Your task to perform on an android device: add a contact Image 0: 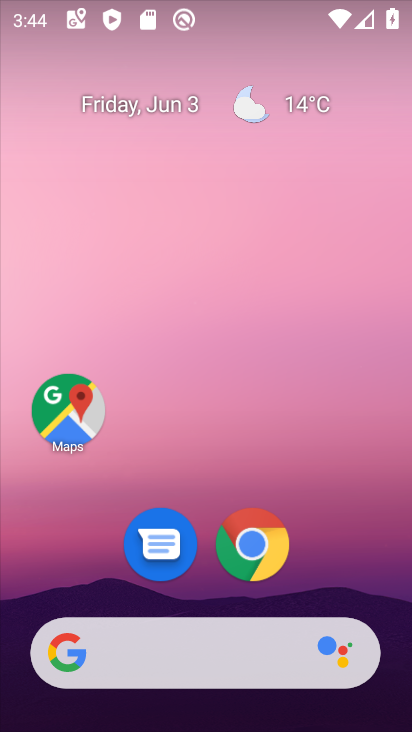
Step 0: drag from (398, 605) to (308, 117)
Your task to perform on an android device: add a contact Image 1: 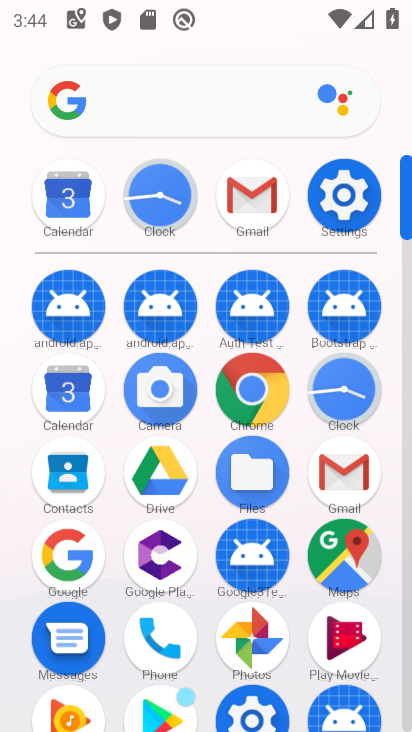
Step 1: click (408, 685)
Your task to perform on an android device: add a contact Image 2: 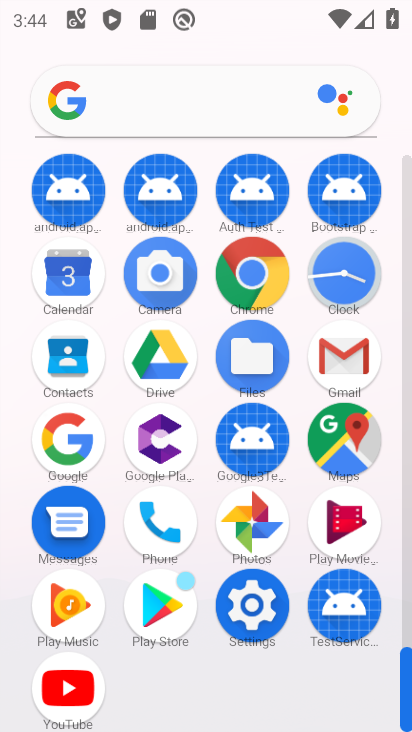
Step 2: click (64, 365)
Your task to perform on an android device: add a contact Image 3: 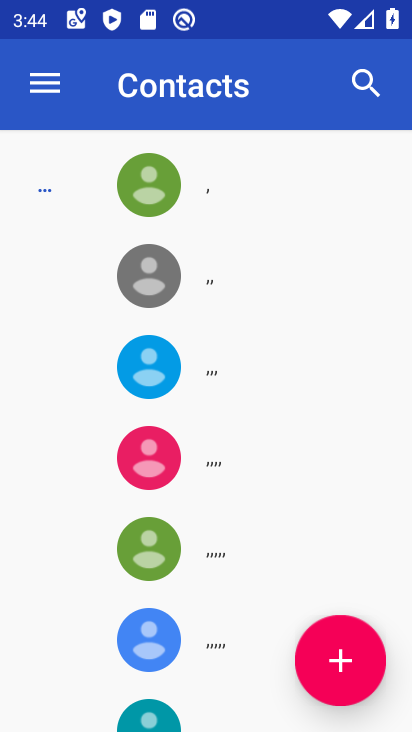
Step 3: click (346, 662)
Your task to perform on an android device: add a contact Image 4: 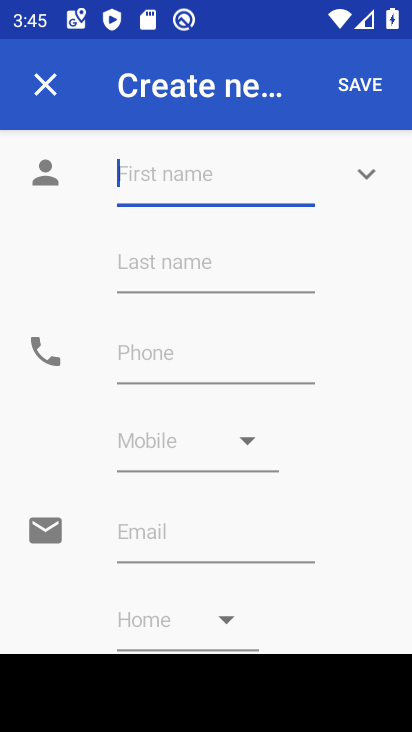
Step 4: type "oiuytghbbbbbn"
Your task to perform on an android device: add a contact Image 5: 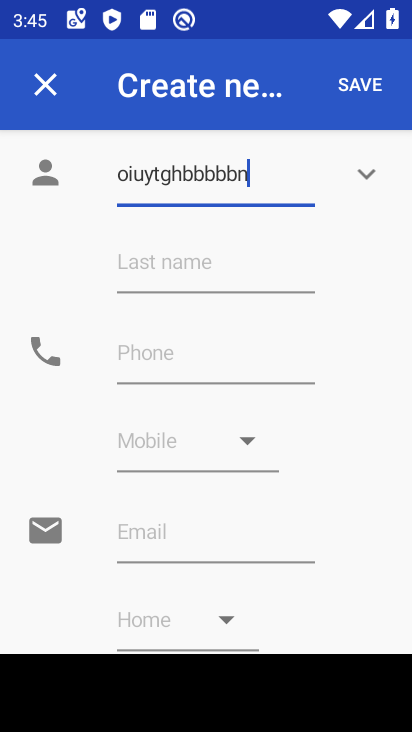
Step 5: click (174, 375)
Your task to perform on an android device: add a contact Image 6: 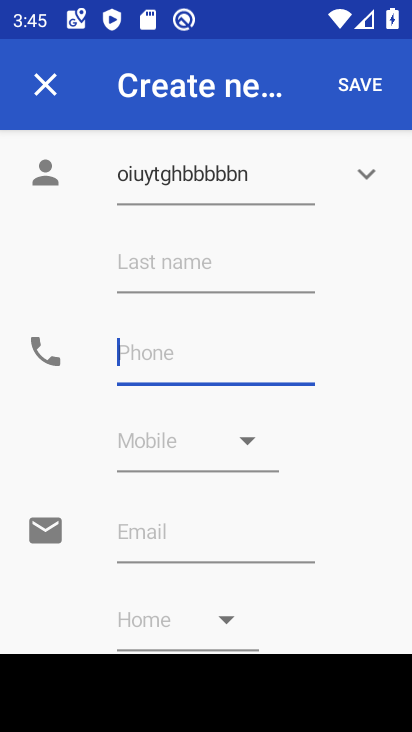
Step 6: type "0987654"
Your task to perform on an android device: add a contact Image 7: 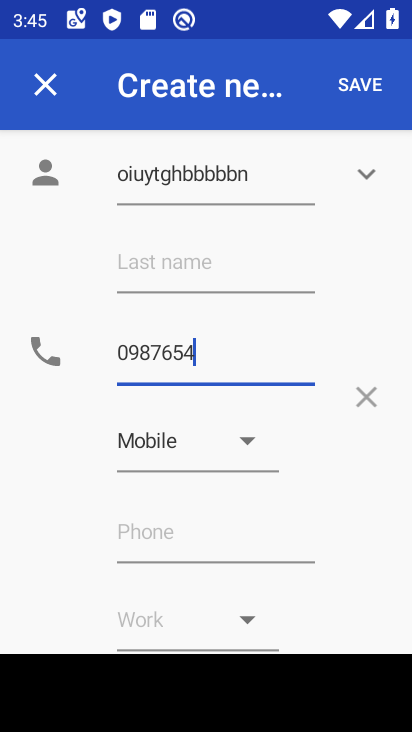
Step 7: click (354, 79)
Your task to perform on an android device: add a contact Image 8: 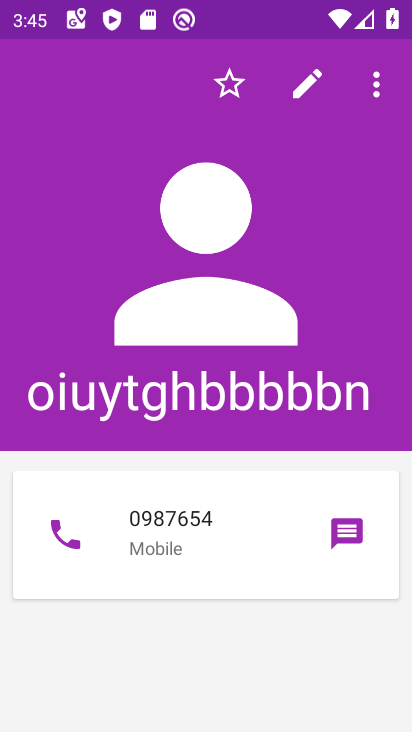
Step 8: task complete